Your task to perform on an android device: Open Android settings Image 0: 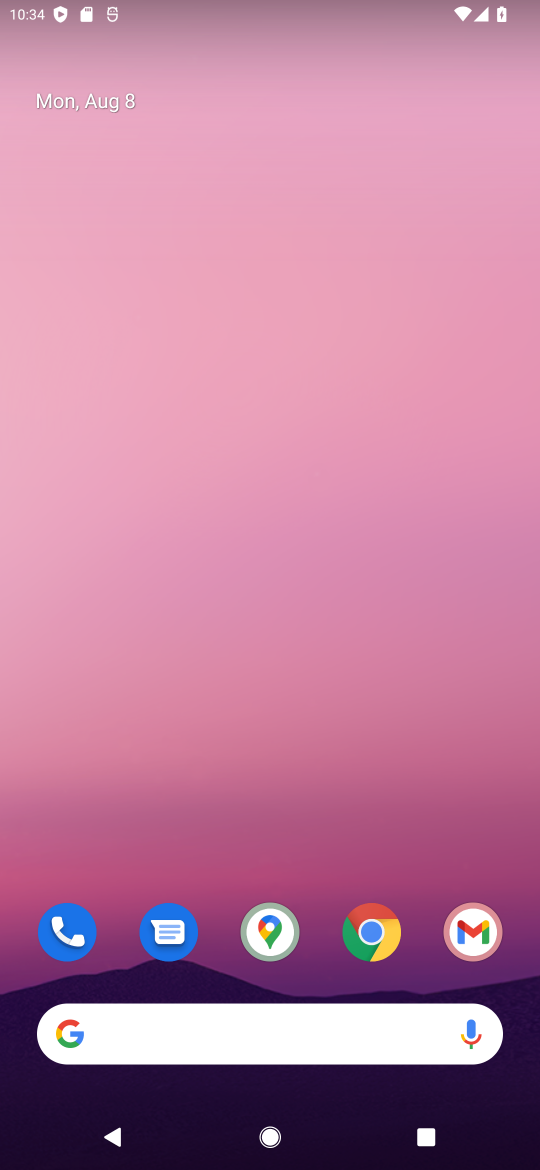
Step 0: drag from (257, 882) to (313, 0)
Your task to perform on an android device: Open Android settings Image 1: 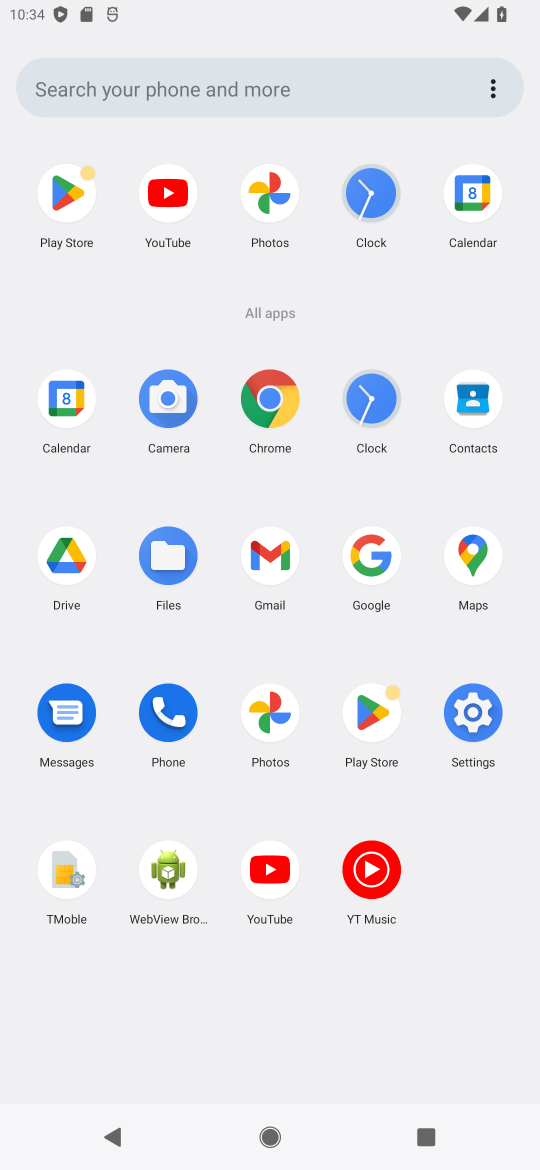
Step 1: click (458, 699)
Your task to perform on an android device: Open Android settings Image 2: 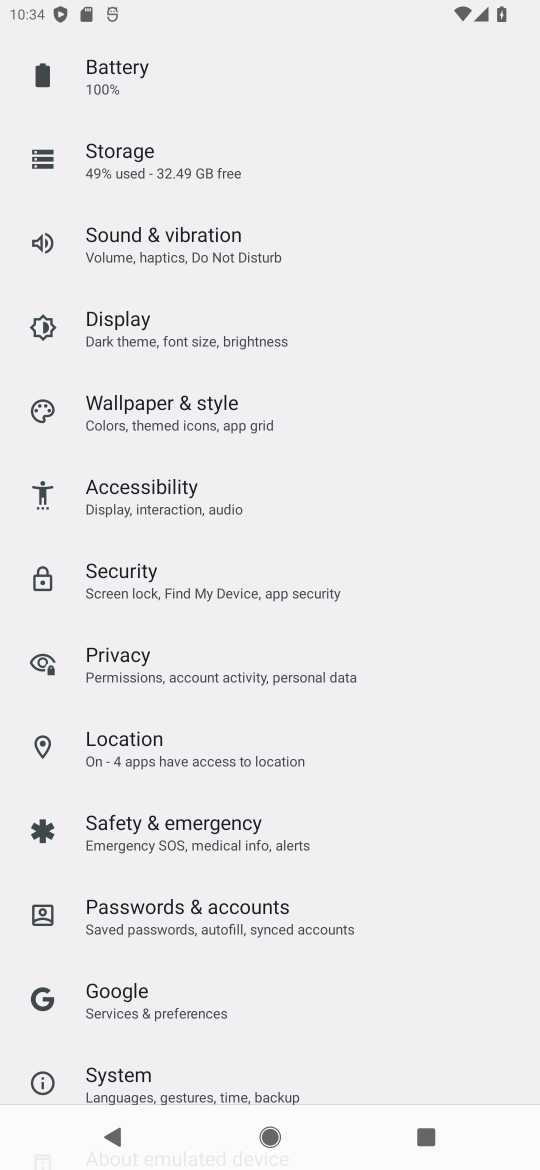
Step 2: task complete